Your task to perform on an android device: empty trash in the gmail app Image 0: 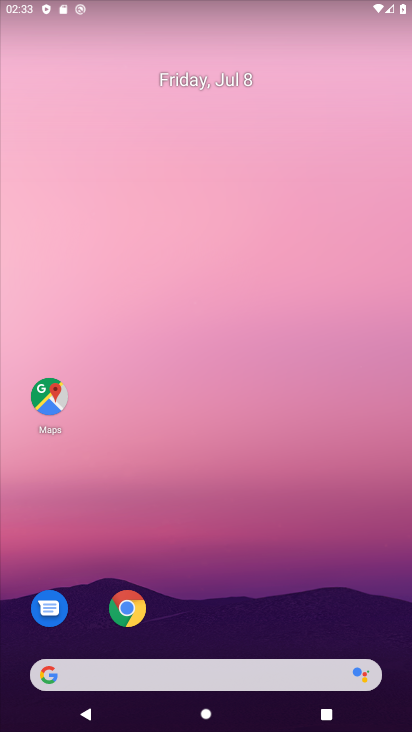
Step 0: drag from (225, 285) to (242, 72)
Your task to perform on an android device: empty trash in the gmail app Image 1: 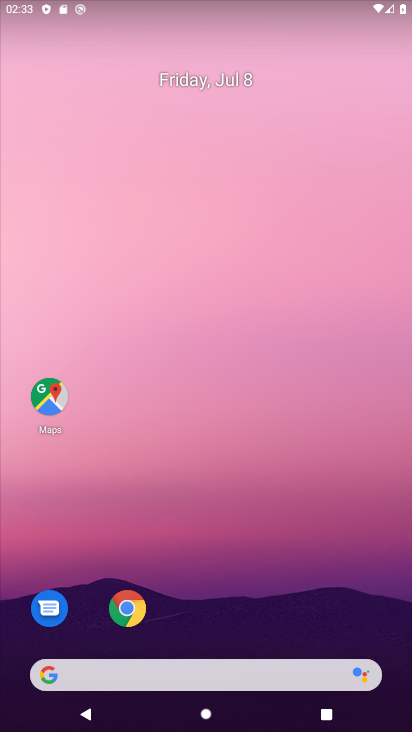
Step 1: drag from (218, 623) to (267, 84)
Your task to perform on an android device: empty trash in the gmail app Image 2: 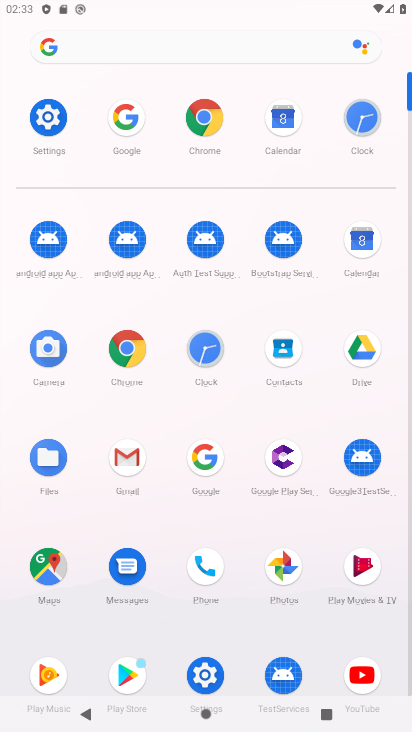
Step 2: click (122, 456)
Your task to perform on an android device: empty trash in the gmail app Image 3: 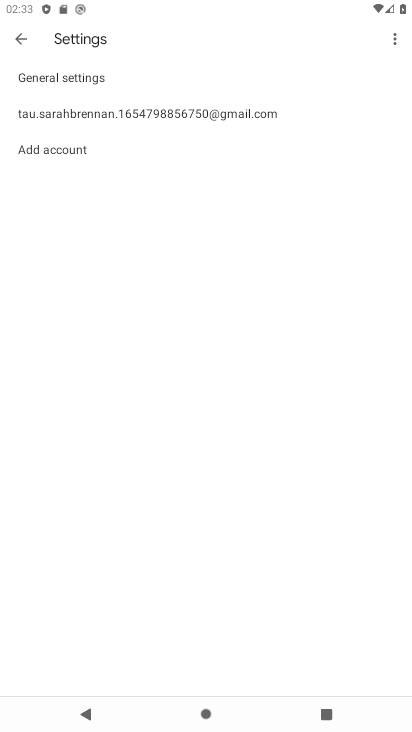
Step 3: press back button
Your task to perform on an android device: empty trash in the gmail app Image 4: 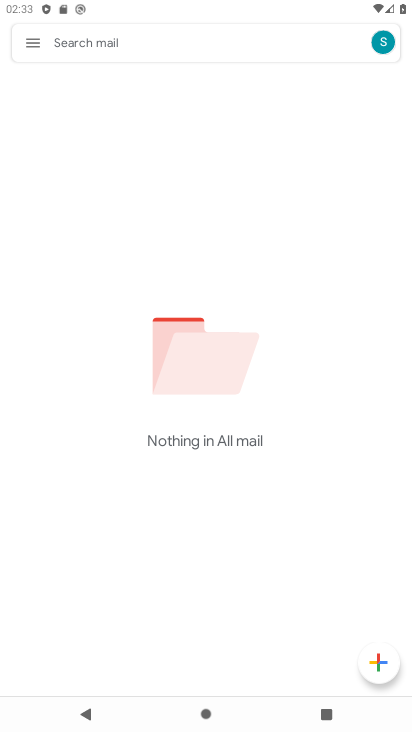
Step 4: click (34, 45)
Your task to perform on an android device: empty trash in the gmail app Image 5: 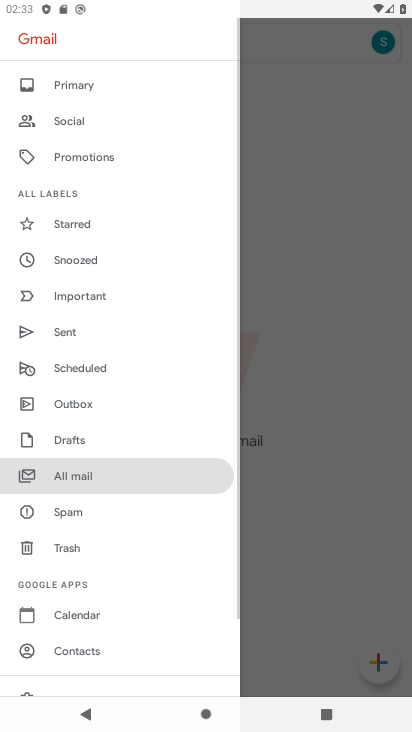
Step 5: click (59, 546)
Your task to perform on an android device: empty trash in the gmail app Image 6: 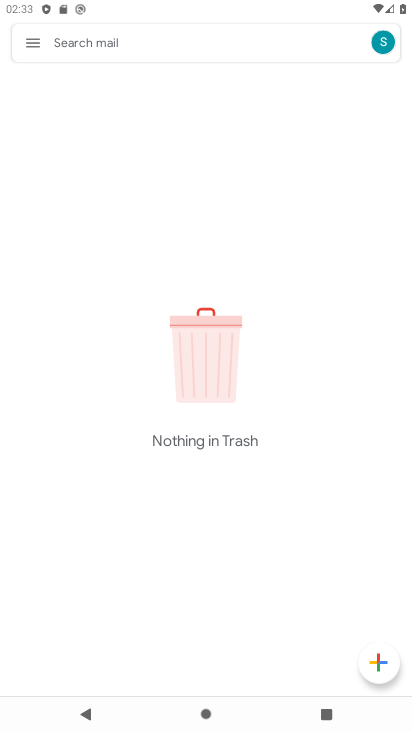
Step 6: task complete